Your task to perform on an android device: See recent photos Image 0: 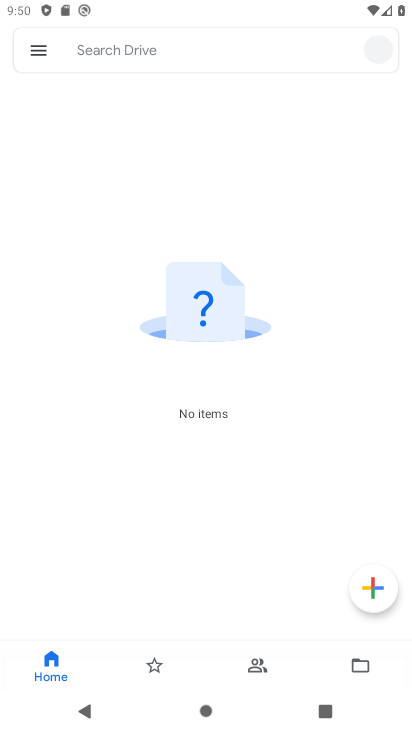
Step 0: press home button
Your task to perform on an android device: See recent photos Image 1: 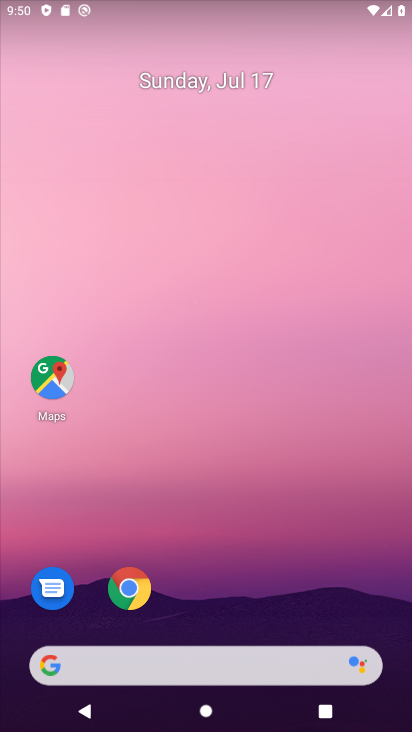
Step 1: drag from (222, 534) to (211, 164)
Your task to perform on an android device: See recent photos Image 2: 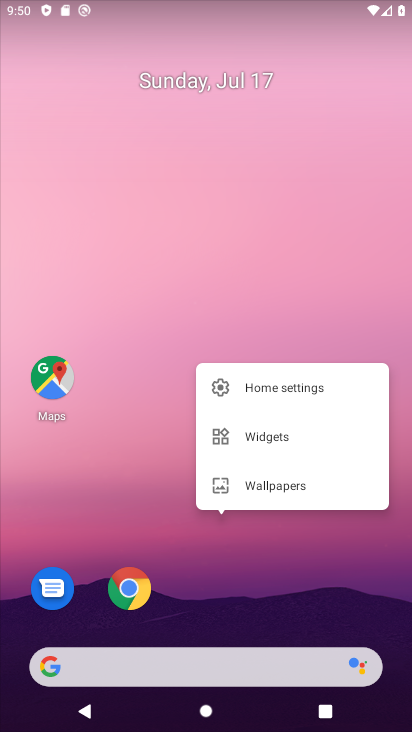
Step 2: click (102, 372)
Your task to perform on an android device: See recent photos Image 3: 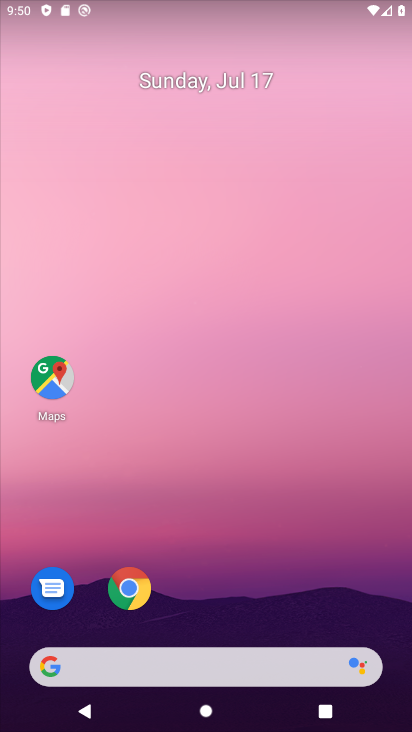
Step 3: drag from (239, 535) to (200, 4)
Your task to perform on an android device: See recent photos Image 4: 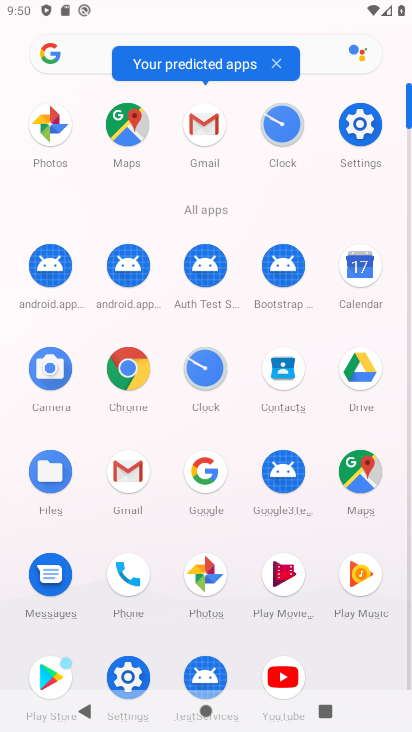
Step 4: click (48, 126)
Your task to perform on an android device: See recent photos Image 5: 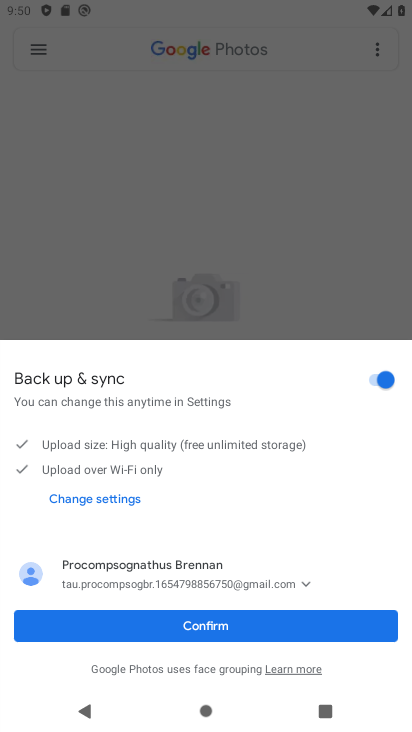
Step 5: click (199, 631)
Your task to perform on an android device: See recent photos Image 6: 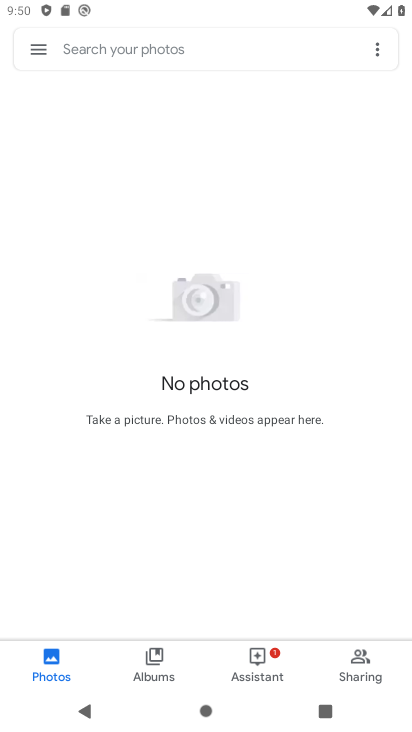
Step 6: task complete